Your task to perform on an android device: uninstall "Viber Messenger" Image 0: 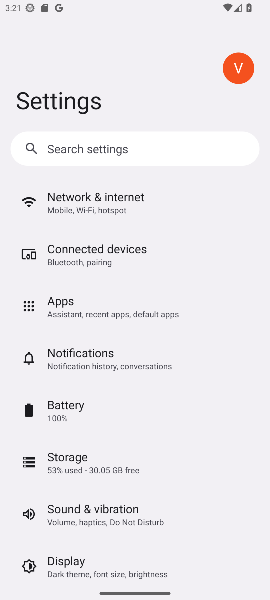
Step 0: press home button
Your task to perform on an android device: uninstall "Viber Messenger" Image 1: 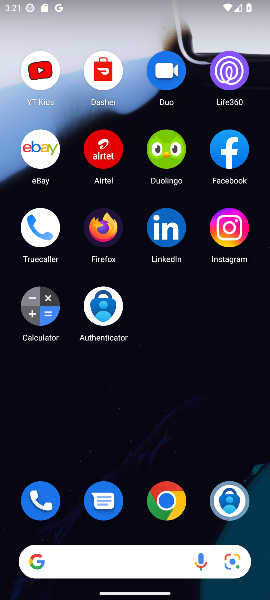
Step 1: drag from (129, 418) to (136, 61)
Your task to perform on an android device: uninstall "Viber Messenger" Image 2: 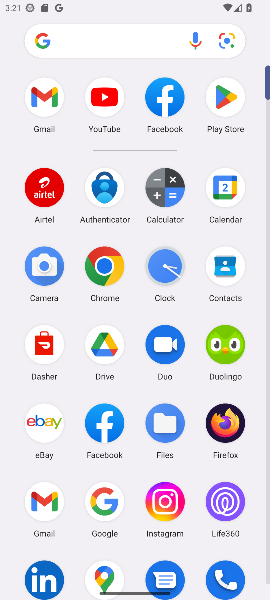
Step 2: click (226, 102)
Your task to perform on an android device: uninstall "Viber Messenger" Image 3: 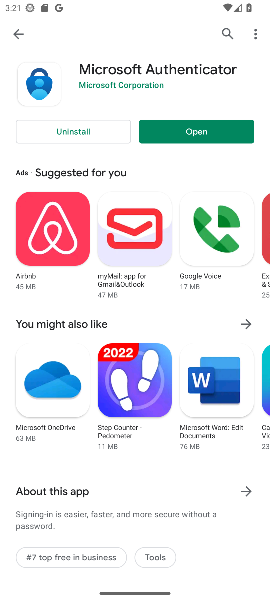
Step 3: click (225, 35)
Your task to perform on an android device: uninstall "Viber Messenger" Image 4: 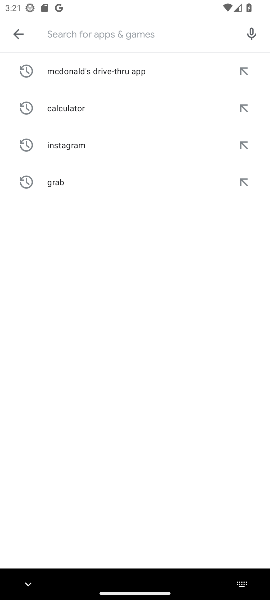
Step 4: type "Viber Messenger"
Your task to perform on an android device: uninstall "Viber Messenger" Image 5: 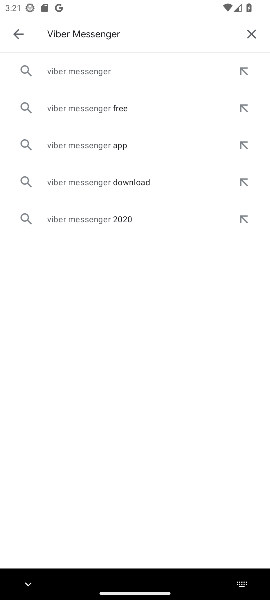
Step 5: click (62, 69)
Your task to perform on an android device: uninstall "Viber Messenger" Image 6: 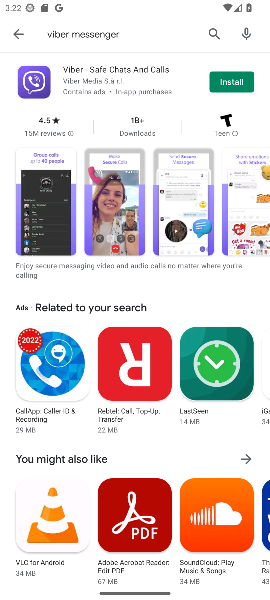
Step 6: task complete